Your task to perform on an android device: turn on sleep mode Image 0: 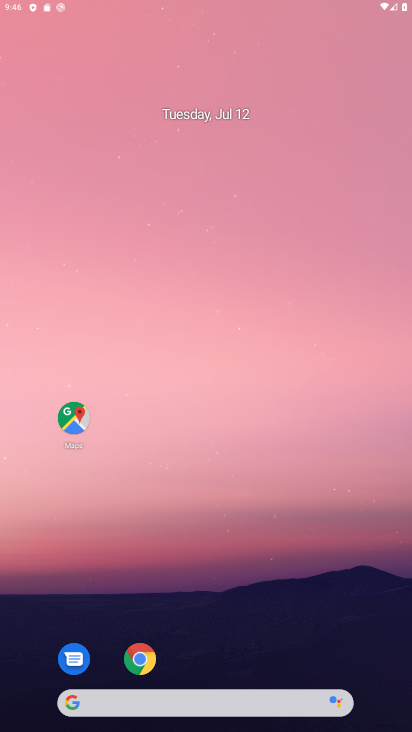
Step 0: click (138, 654)
Your task to perform on an android device: turn on sleep mode Image 1: 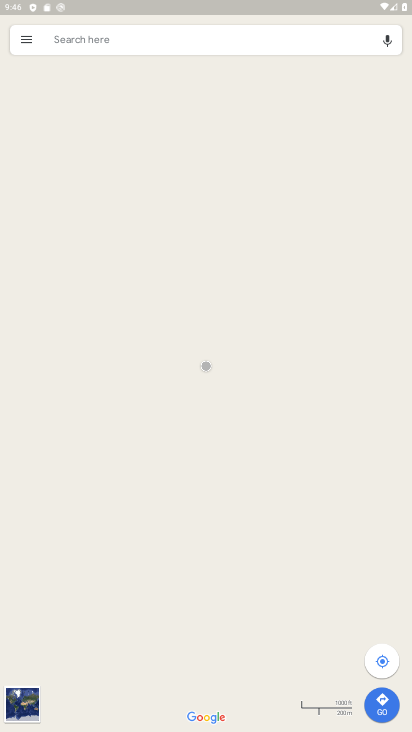
Step 1: click (135, 42)
Your task to perform on an android device: turn on sleep mode Image 2: 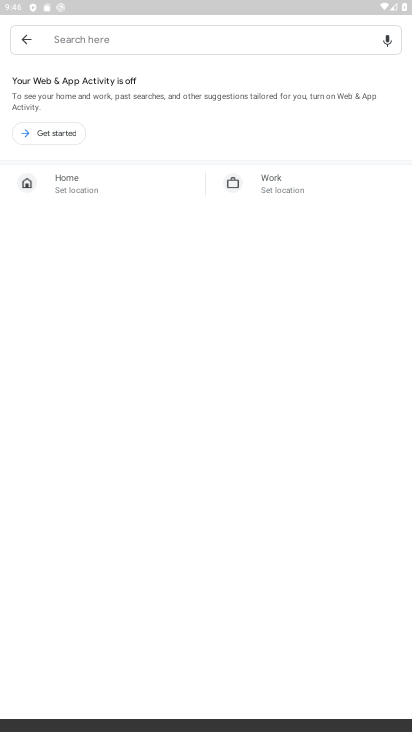
Step 2: press home button
Your task to perform on an android device: turn on sleep mode Image 3: 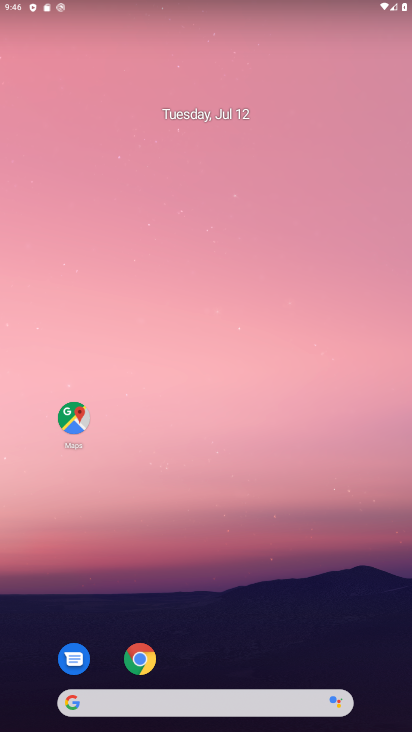
Step 3: drag from (368, 673) to (260, 201)
Your task to perform on an android device: turn on sleep mode Image 4: 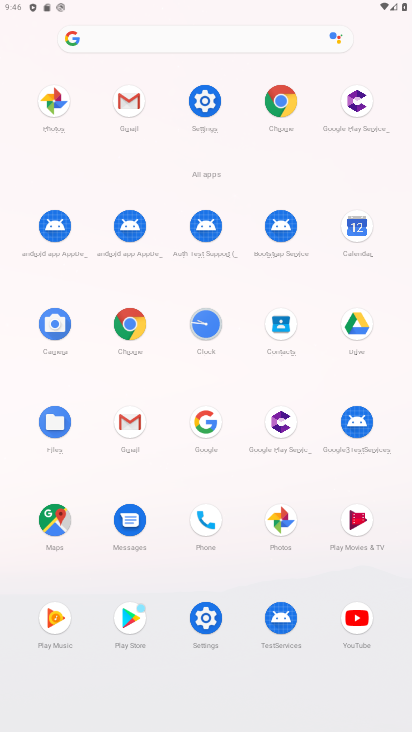
Step 4: click (200, 99)
Your task to perform on an android device: turn on sleep mode Image 5: 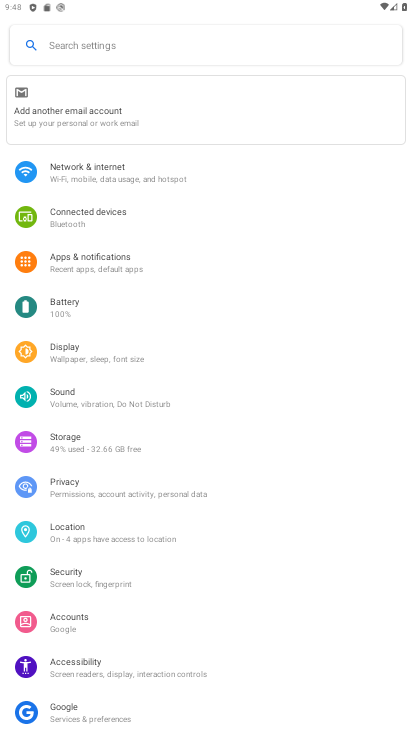
Step 5: click (71, 345)
Your task to perform on an android device: turn on sleep mode Image 6: 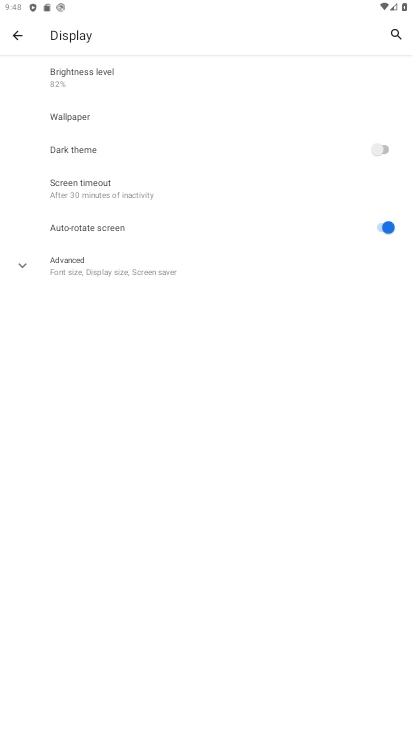
Step 6: click (83, 351)
Your task to perform on an android device: turn on sleep mode Image 7: 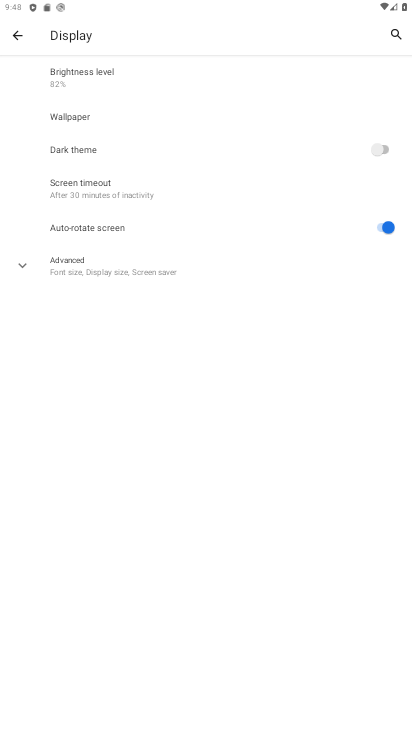
Step 7: click (73, 190)
Your task to perform on an android device: turn on sleep mode Image 8: 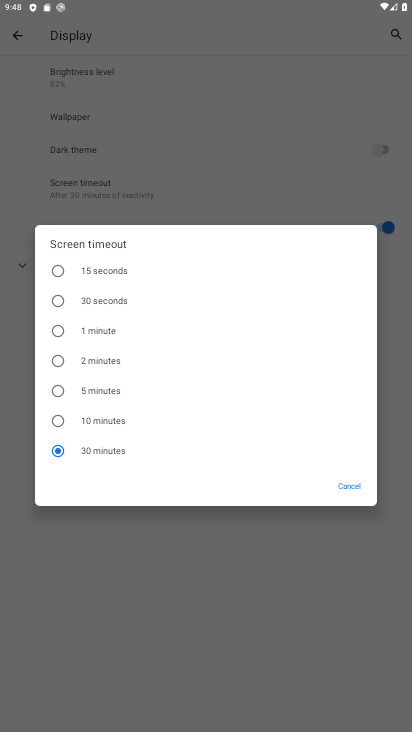
Step 8: task complete